Your task to perform on an android device: See recent photos Image 0: 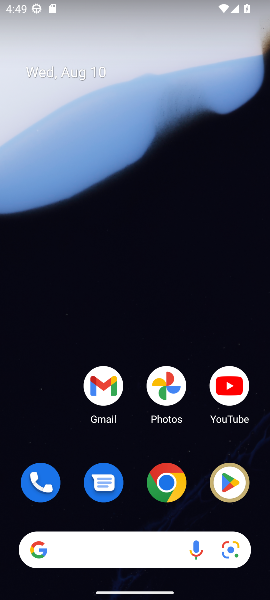
Step 0: click (163, 388)
Your task to perform on an android device: See recent photos Image 1: 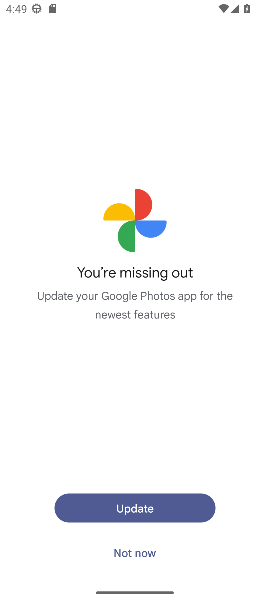
Step 1: click (149, 551)
Your task to perform on an android device: See recent photos Image 2: 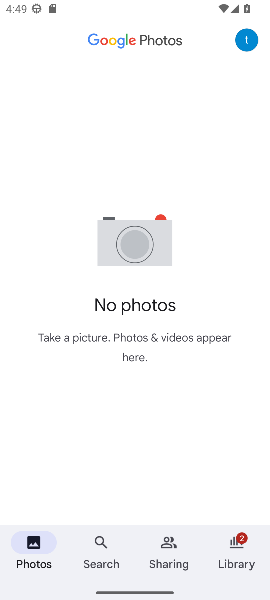
Step 2: task complete